Your task to perform on an android device: Open the calendar app, open the side menu, and click the "Day" option Image 0: 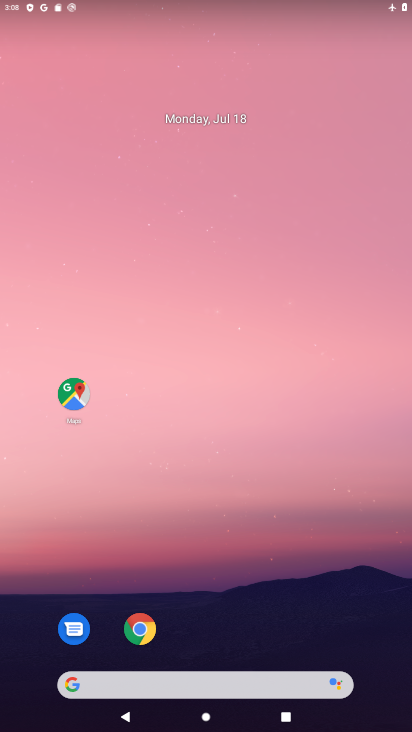
Step 0: drag from (218, 673) to (170, 57)
Your task to perform on an android device: Open the calendar app, open the side menu, and click the "Day" option Image 1: 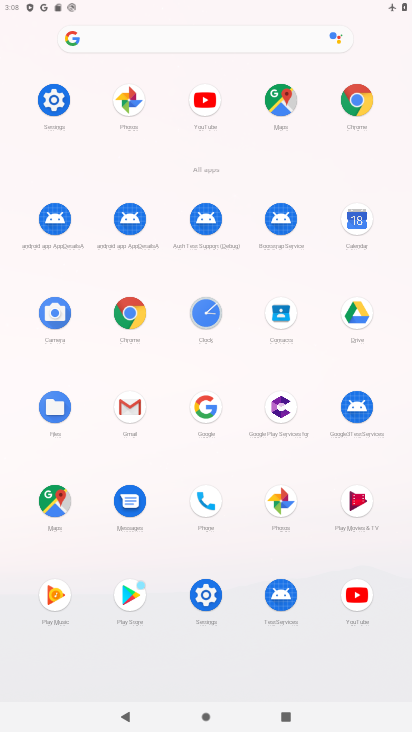
Step 1: click (345, 226)
Your task to perform on an android device: Open the calendar app, open the side menu, and click the "Day" option Image 2: 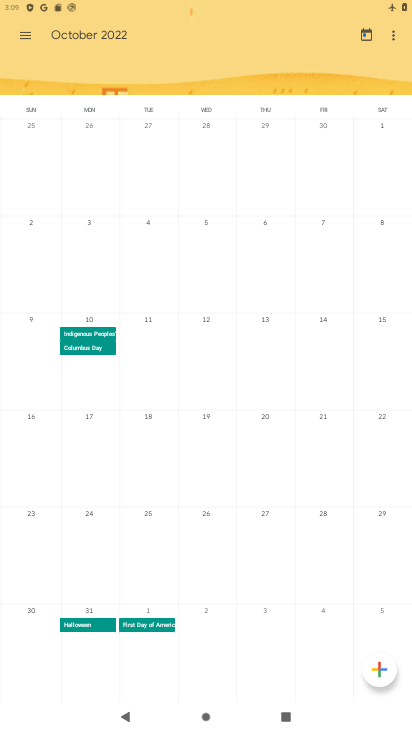
Step 2: click (18, 40)
Your task to perform on an android device: Open the calendar app, open the side menu, and click the "Day" option Image 3: 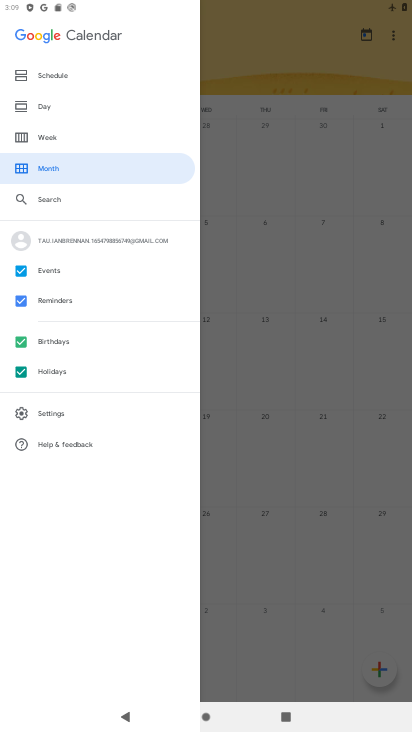
Step 3: click (41, 101)
Your task to perform on an android device: Open the calendar app, open the side menu, and click the "Day" option Image 4: 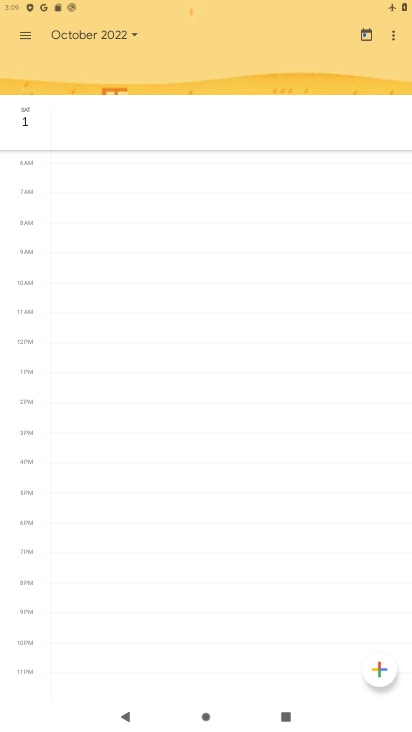
Step 4: task complete